Your task to perform on an android device: What's on my calendar tomorrow? Image 0: 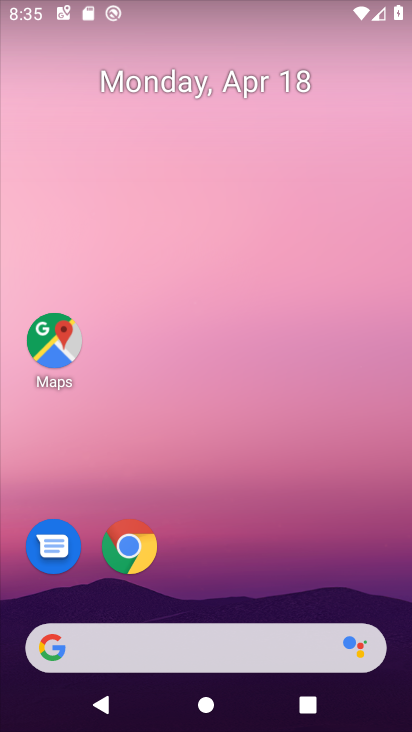
Step 0: drag from (374, 608) to (259, 153)
Your task to perform on an android device: What's on my calendar tomorrow? Image 1: 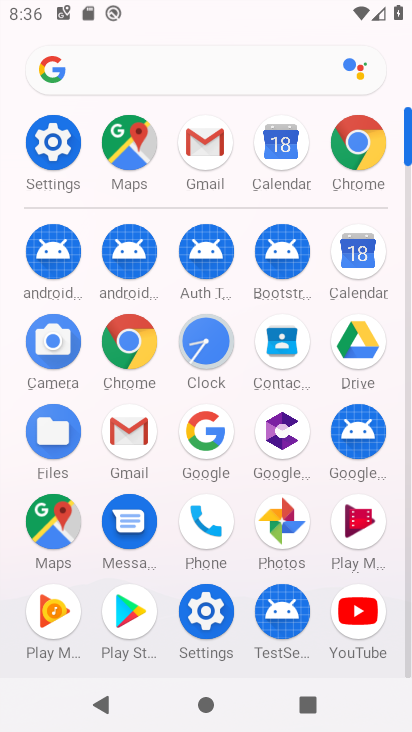
Step 1: click (354, 252)
Your task to perform on an android device: What's on my calendar tomorrow? Image 2: 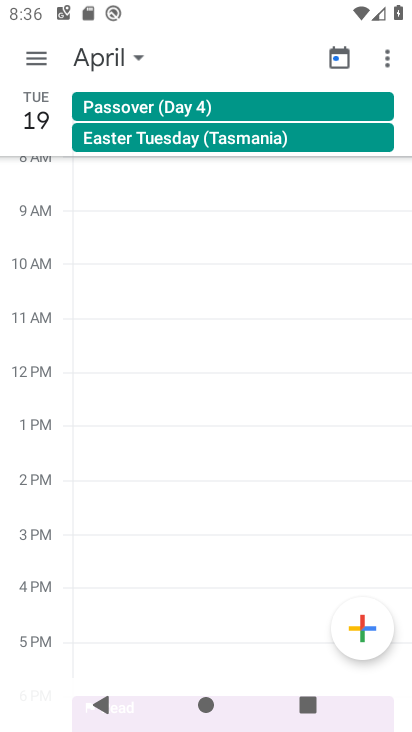
Step 2: click (120, 56)
Your task to perform on an android device: What's on my calendar tomorrow? Image 3: 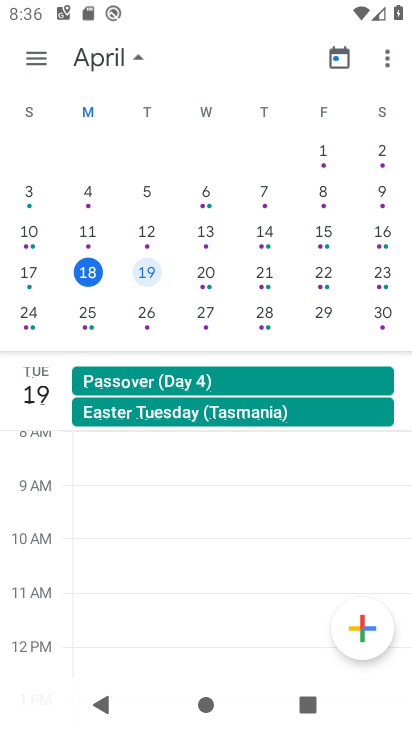
Step 3: click (200, 266)
Your task to perform on an android device: What's on my calendar tomorrow? Image 4: 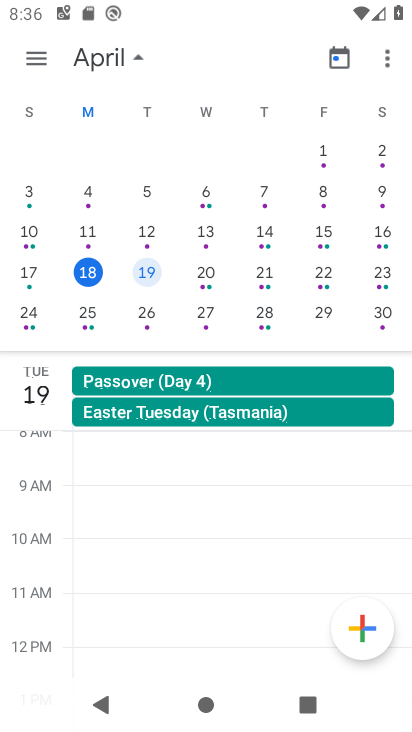
Step 4: click (203, 271)
Your task to perform on an android device: What's on my calendar tomorrow? Image 5: 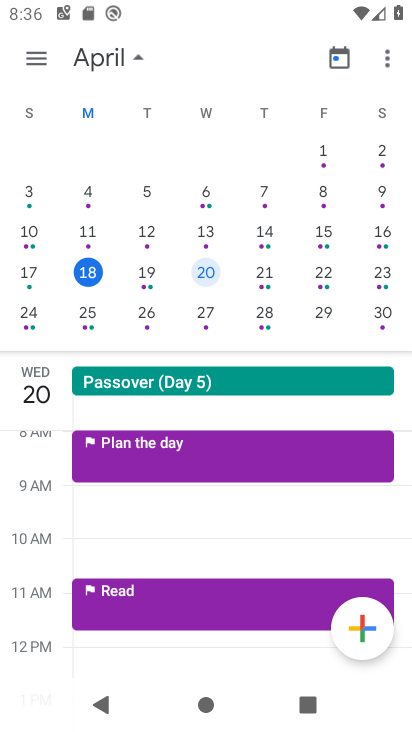
Step 5: click (112, 55)
Your task to perform on an android device: What's on my calendar tomorrow? Image 6: 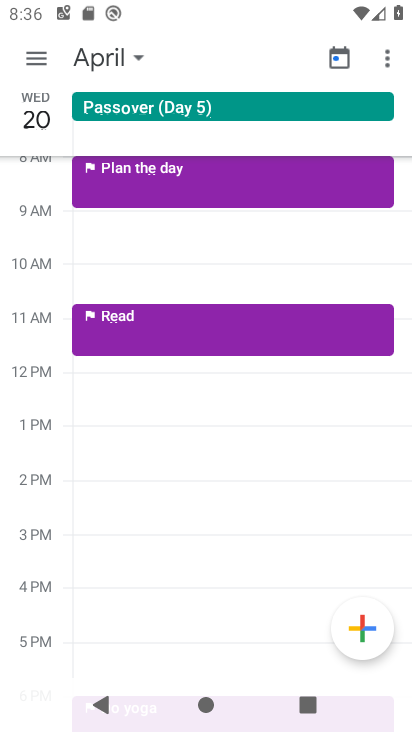
Step 6: task complete